Your task to perform on an android device: Open maps Image 0: 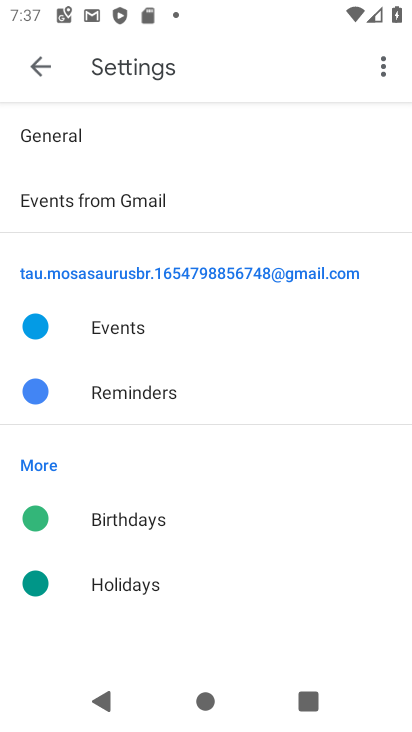
Step 0: press home button
Your task to perform on an android device: Open maps Image 1: 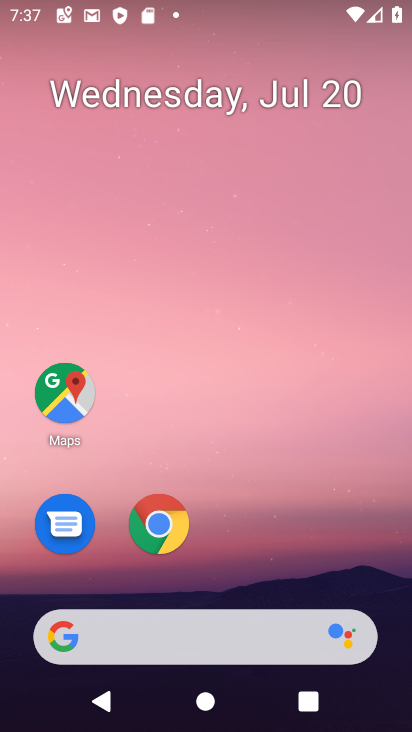
Step 1: click (69, 393)
Your task to perform on an android device: Open maps Image 2: 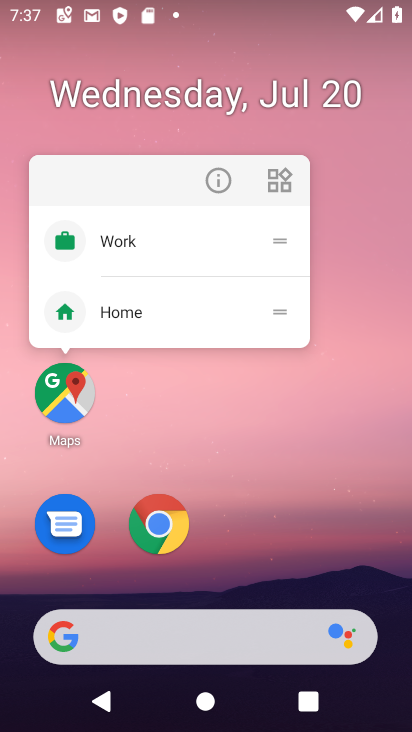
Step 2: click (55, 406)
Your task to perform on an android device: Open maps Image 3: 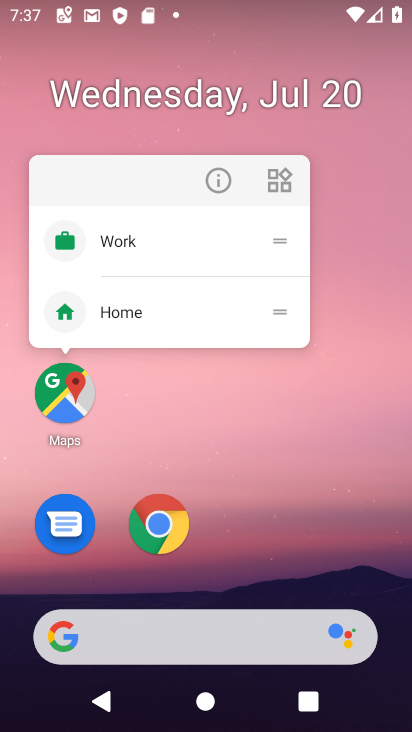
Step 3: click (60, 396)
Your task to perform on an android device: Open maps Image 4: 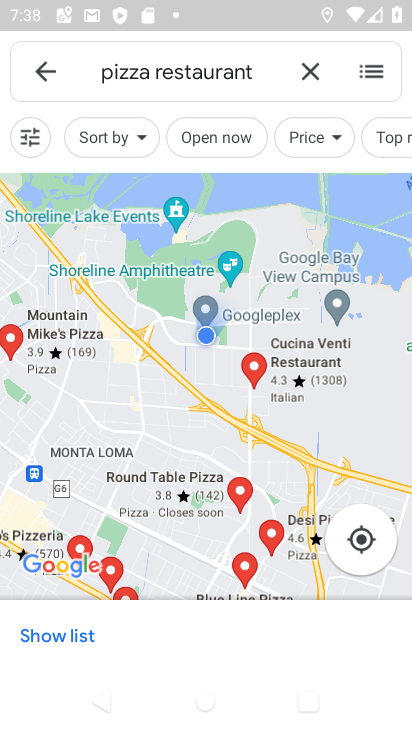
Step 4: task complete